Your task to perform on an android device: turn off wifi Image 0: 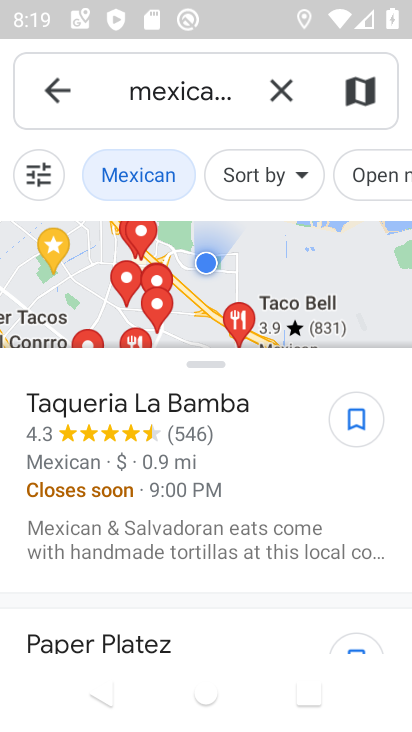
Step 0: press home button
Your task to perform on an android device: turn off wifi Image 1: 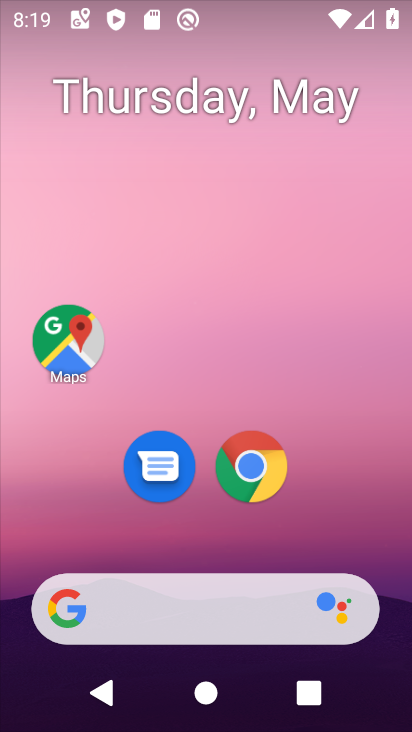
Step 1: drag from (319, 555) to (316, 30)
Your task to perform on an android device: turn off wifi Image 2: 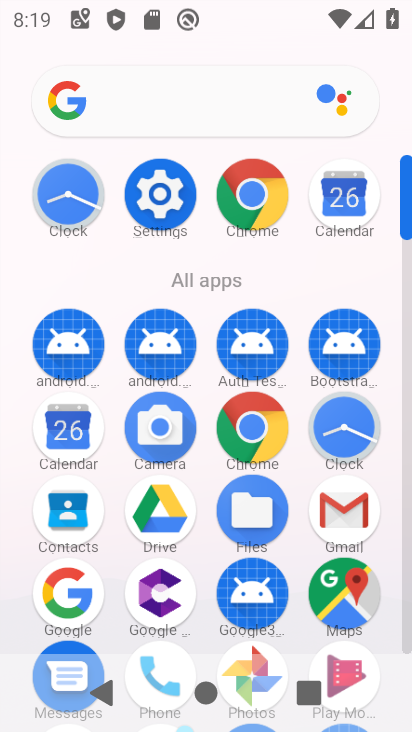
Step 2: click (158, 195)
Your task to perform on an android device: turn off wifi Image 3: 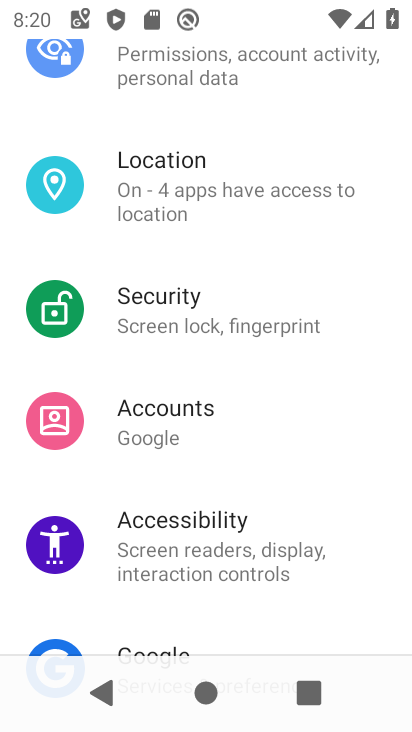
Step 3: drag from (312, 157) to (279, 503)
Your task to perform on an android device: turn off wifi Image 4: 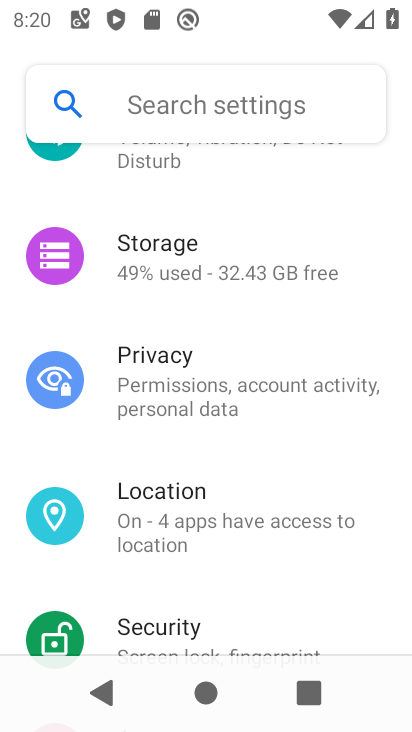
Step 4: drag from (220, 152) to (240, 602)
Your task to perform on an android device: turn off wifi Image 5: 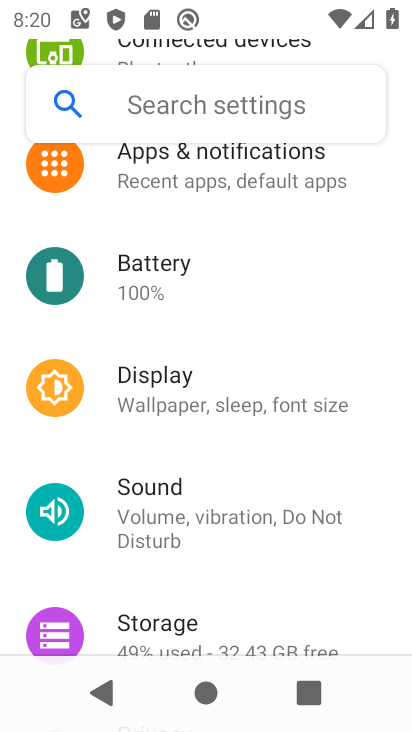
Step 5: drag from (286, 235) to (300, 580)
Your task to perform on an android device: turn off wifi Image 6: 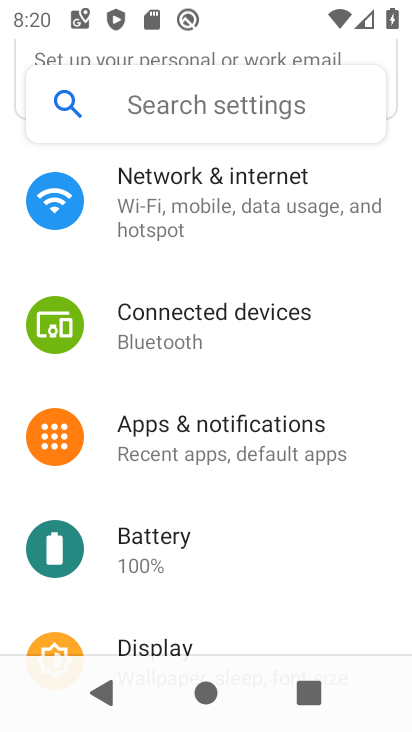
Step 6: click (191, 216)
Your task to perform on an android device: turn off wifi Image 7: 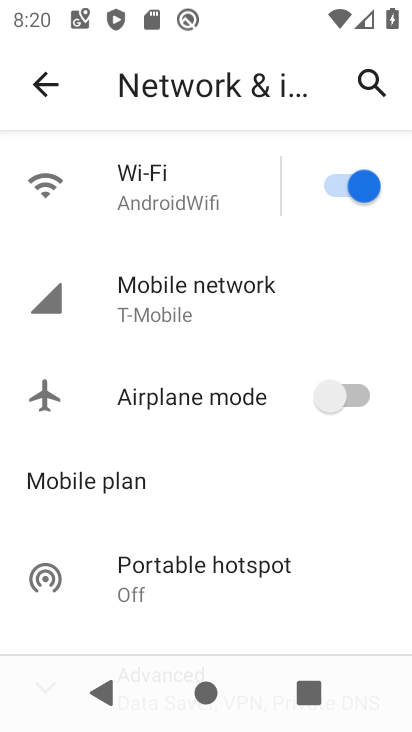
Step 7: click (363, 183)
Your task to perform on an android device: turn off wifi Image 8: 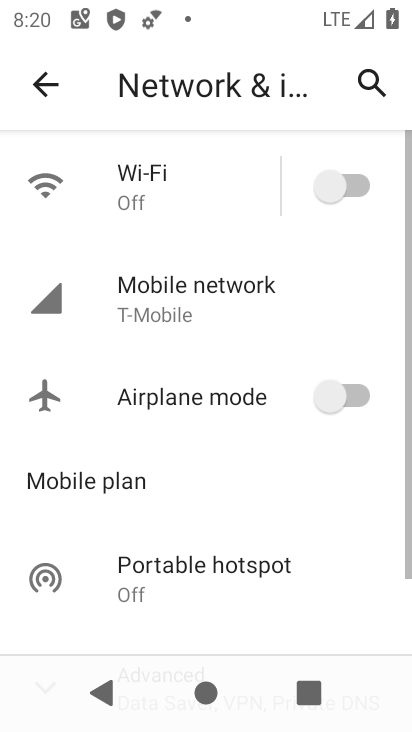
Step 8: task complete